Your task to perform on an android device: turn smart compose on in the gmail app Image 0: 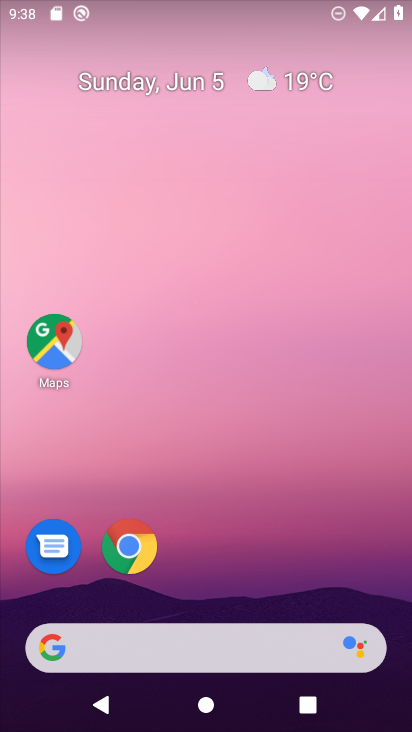
Step 0: drag from (193, 609) to (137, 57)
Your task to perform on an android device: turn smart compose on in the gmail app Image 1: 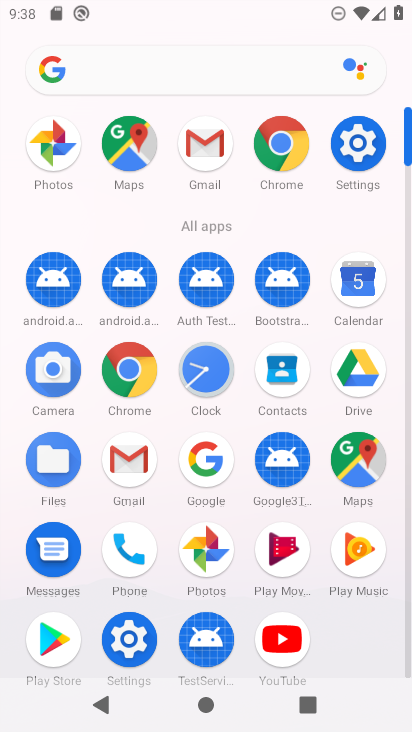
Step 1: click (131, 479)
Your task to perform on an android device: turn smart compose on in the gmail app Image 2: 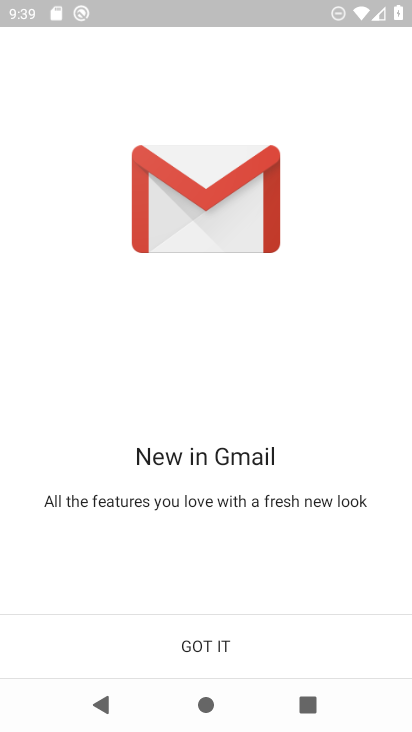
Step 2: click (190, 641)
Your task to perform on an android device: turn smart compose on in the gmail app Image 3: 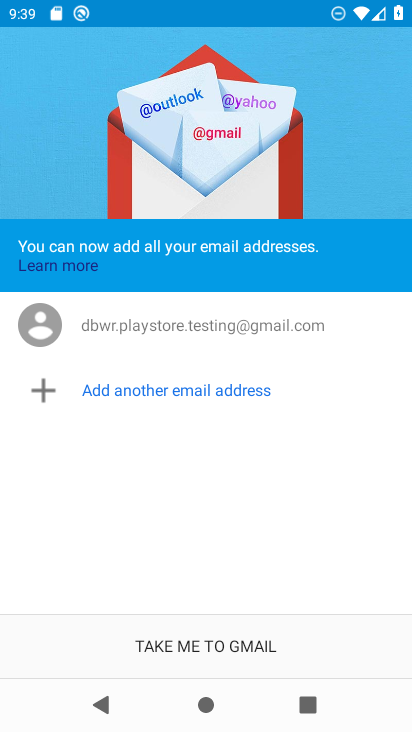
Step 3: click (190, 641)
Your task to perform on an android device: turn smart compose on in the gmail app Image 4: 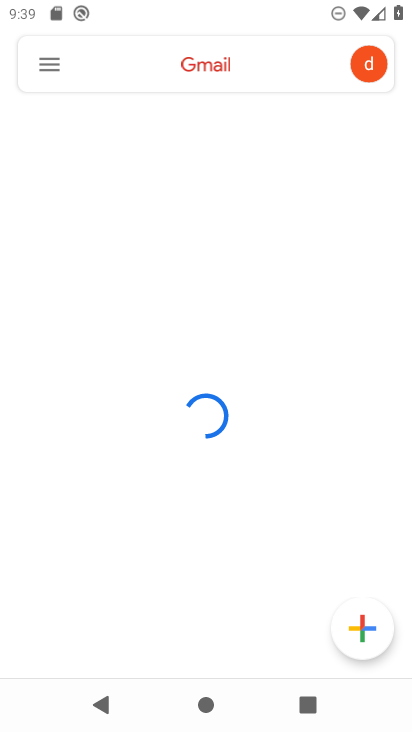
Step 4: click (56, 63)
Your task to perform on an android device: turn smart compose on in the gmail app Image 5: 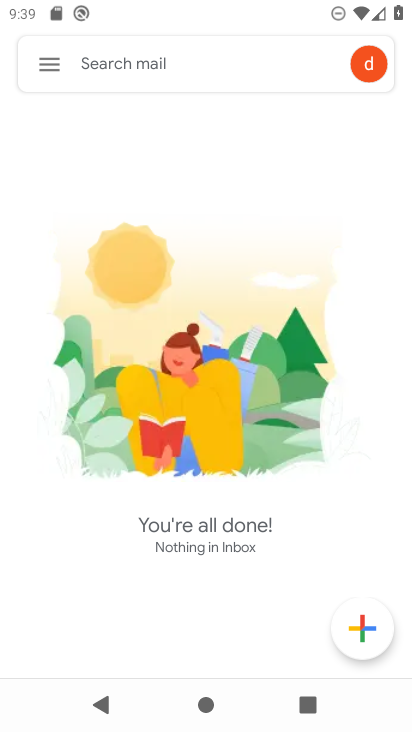
Step 5: click (38, 60)
Your task to perform on an android device: turn smart compose on in the gmail app Image 6: 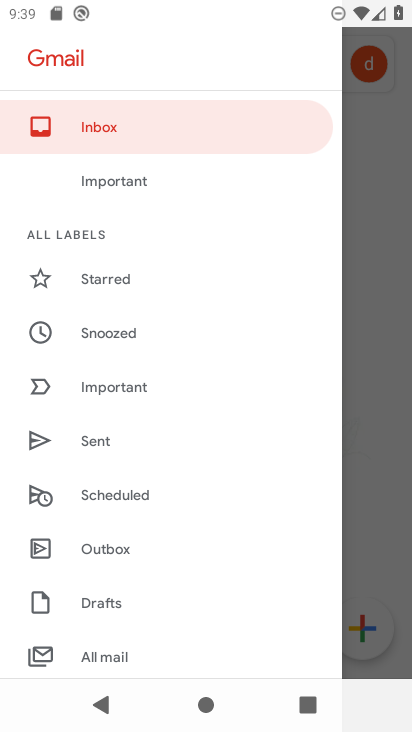
Step 6: drag from (160, 552) to (133, 222)
Your task to perform on an android device: turn smart compose on in the gmail app Image 7: 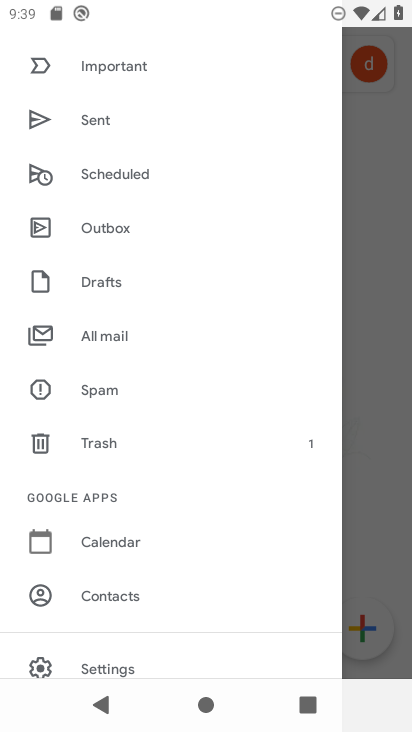
Step 7: click (82, 651)
Your task to perform on an android device: turn smart compose on in the gmail app Image 8: 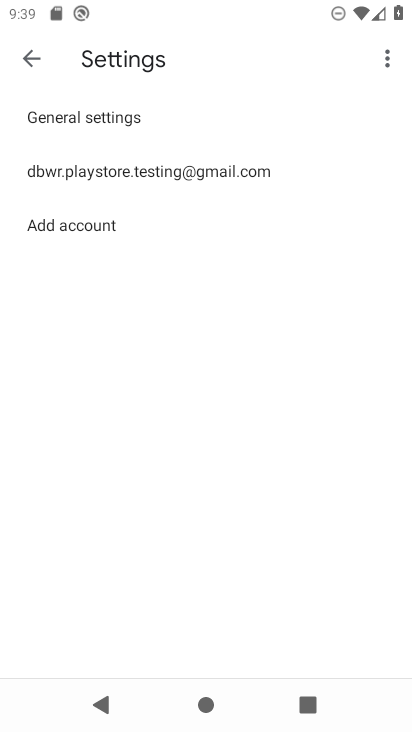
Step 8: click (107, 177)
Your task to perform on an android device: turn smart compose on in the gmail app Image 9: 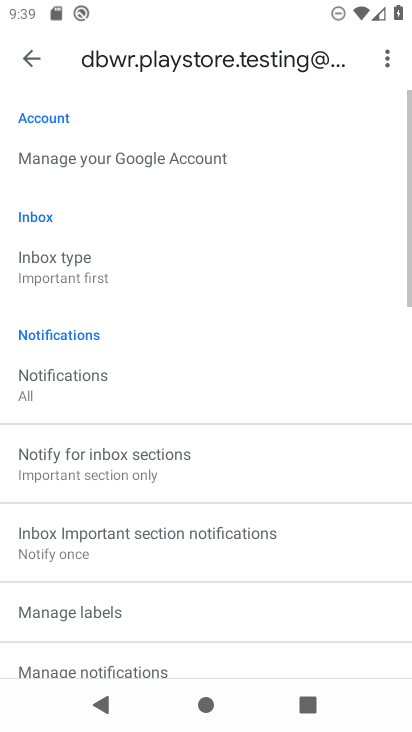
Step 9: task complete